Your task to perform on an android device: Open Google Chrome and open the bookmarks view Image 0: 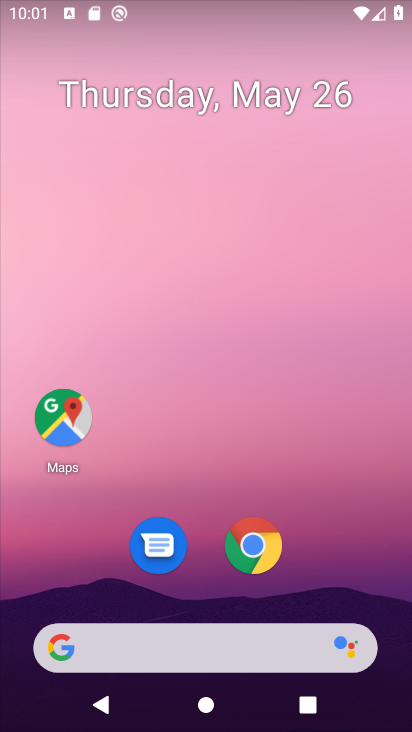
Step 0: click (379, 399)
Your task to perform on an android device: Open Google Chrome and open the bookmarks view Image 1: 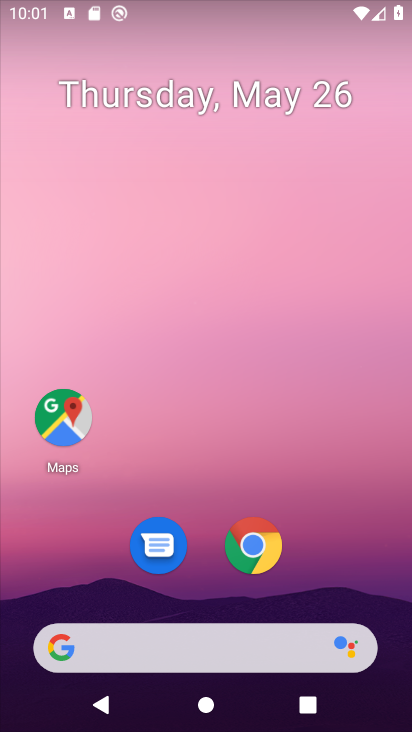
Step 1: press home button
Your task to perform on an android device: Open Google Chrome and open the bookmarks view Image 2: 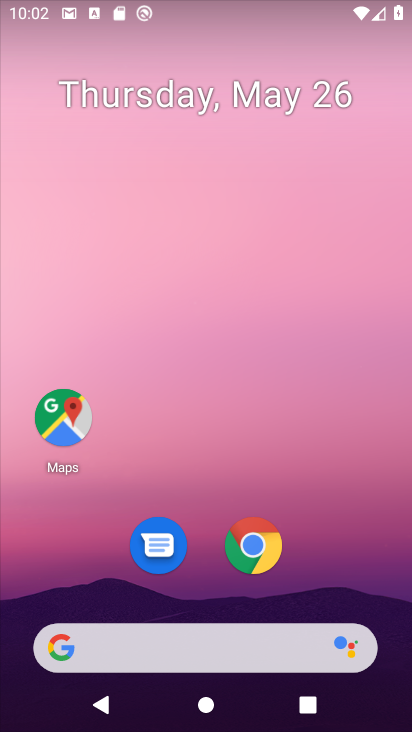
Step 2: click (242, 537)
Your task to perform on an android device: Open Google Chrome and open the bookmarks view Image 3: 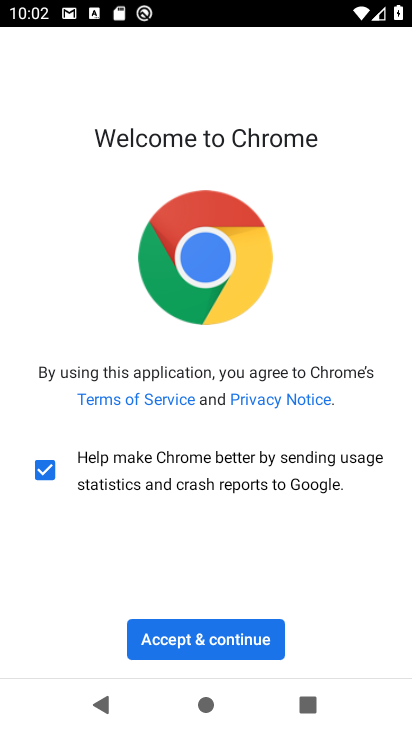
Step 3: click (184, 626)
Your task to perform on an android device: Open Google Chrome and open the bookmarks view Image 4: 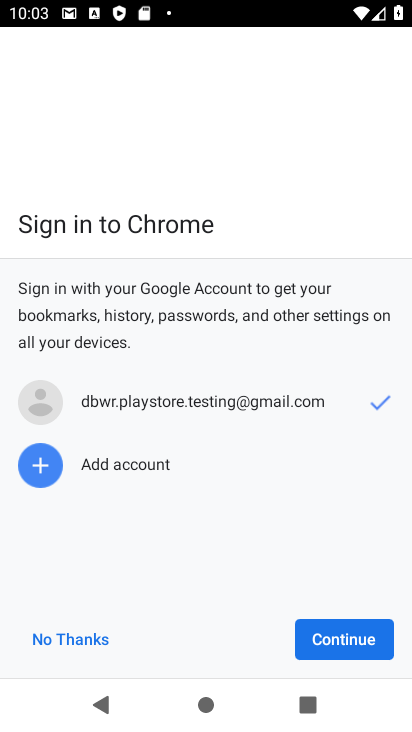
Step 4: click (204, 590)
Your task to perform on an android device: Open Google Chrome and open the bookmarks view Image 5: 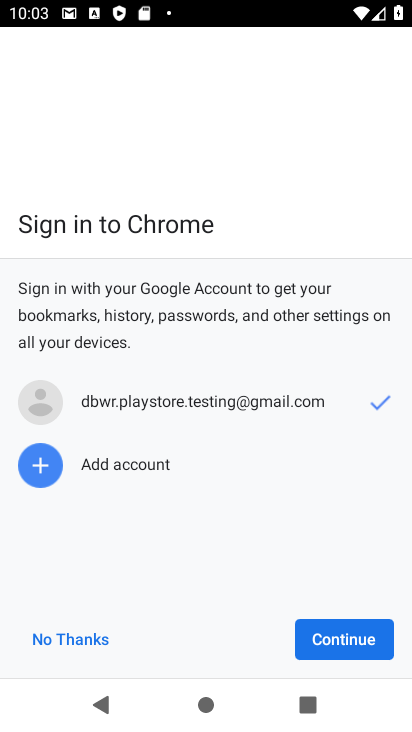
Step 5: press home button
Your task to perform on an android device: Open Google Chrome and open the bookmarks view Image 6: 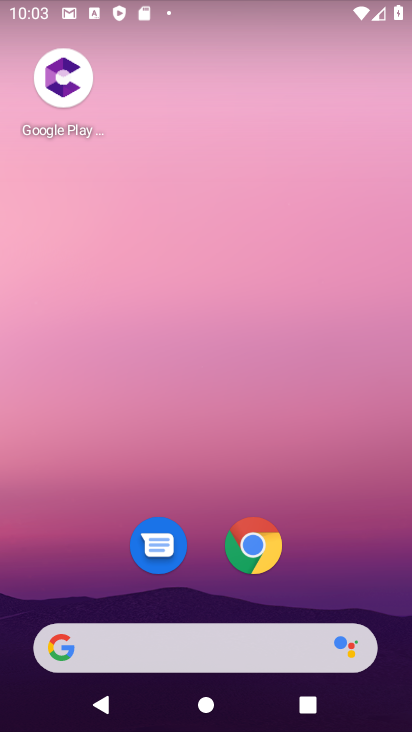
Step 6: click (255, 534)
Your task to perform on an android device: Open Google Chrome and open the bookmarks view Image 7: 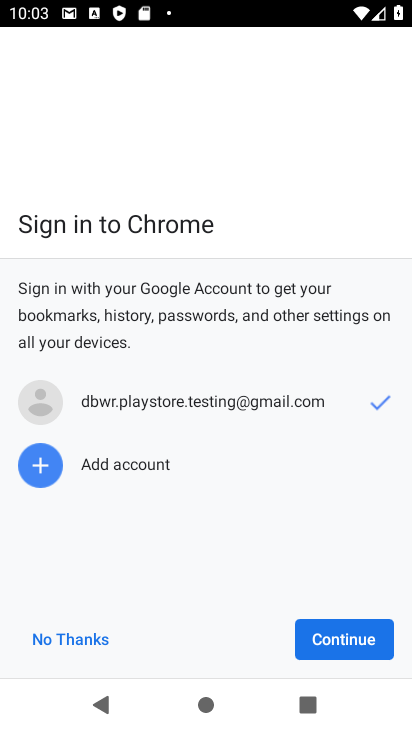
Step 7: click (331, 640)
Your task to perform on an android device: Open Google Chrome and open the bookmarks view Image 8: 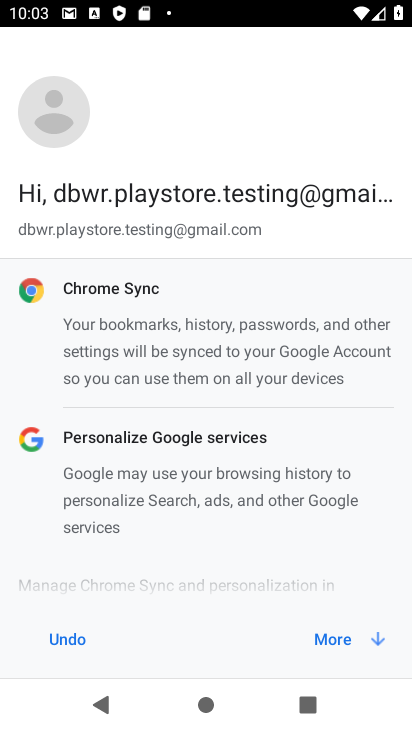
Step 8: click (333, 639)
Your task to perform on an android device: Open Google Chrome and open the bookmarks view Image 9: 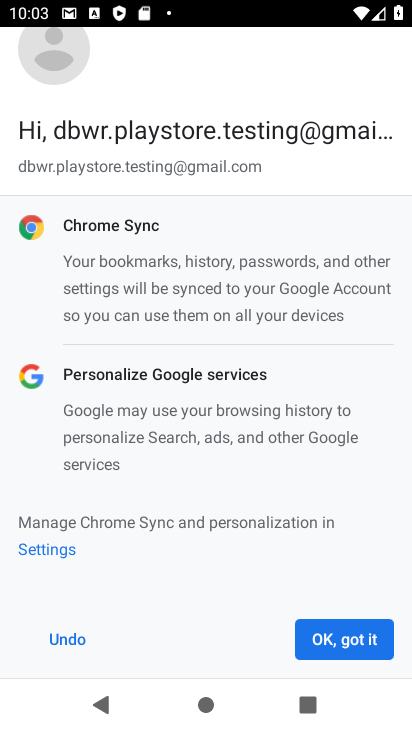
Step 9: click (343, 632)
Your task to perform on an android device: Open Google Chrome and open the bookmarks view Image 10: 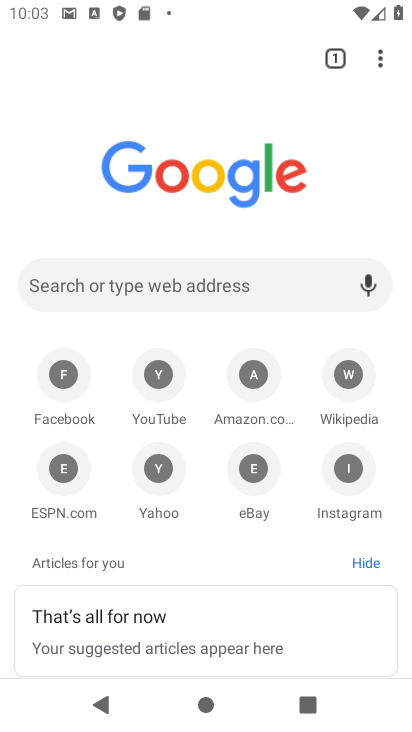
Step 10: click (382, 49)
Your task to perform on an android device: Open Google Chrome and open the bookmarks view Image 11: 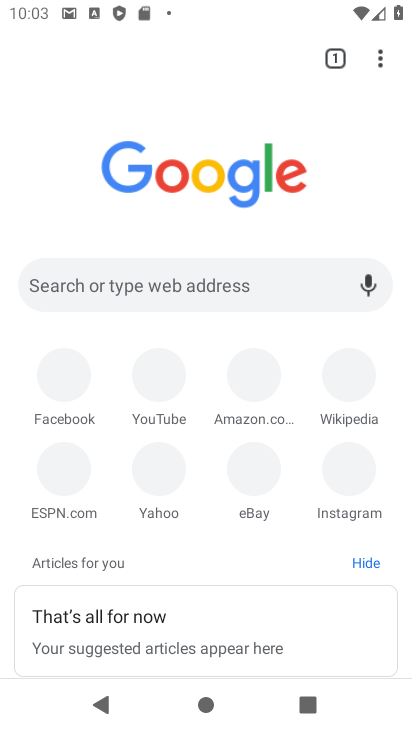
Step 11: task complete